Your task to perform on an android device: check google app version Image 0: 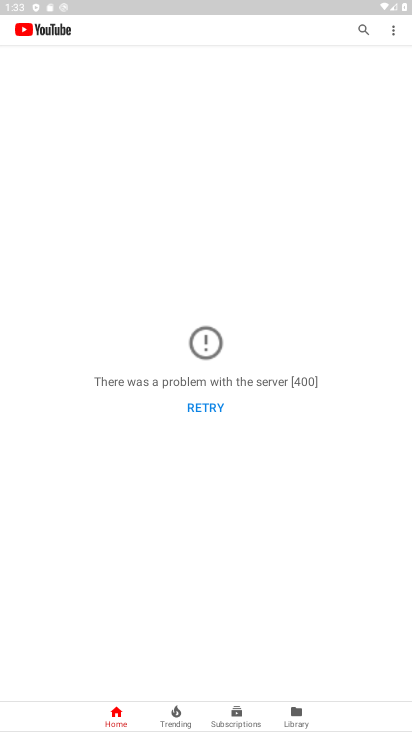
Step 0: press home button
Your task to perform on an android device: check google app version Image 1: 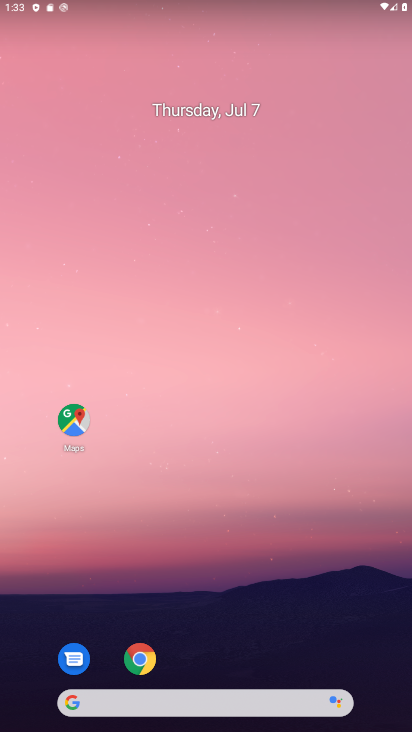
Step 1: drag from (214, 643) to (268, 63)
Your task to perform on an android device: check google app version Image 2: 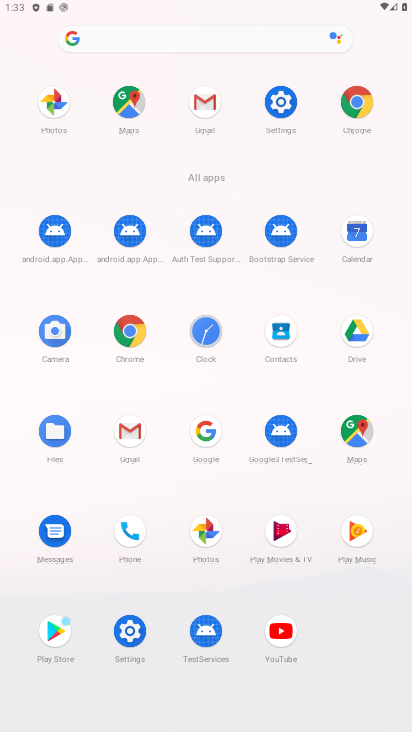
Step 2: click (200, 437)
Your task to perform on an android device: check google app version Image 3: 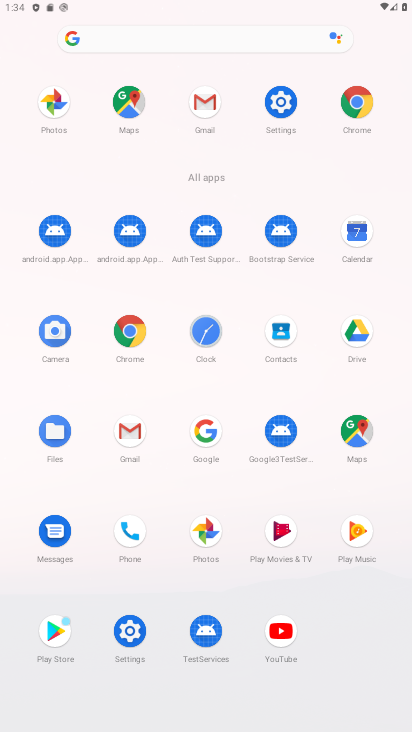
Step 3: click (203, 425)
Your task to perform on an android device: check google app version Image 4: 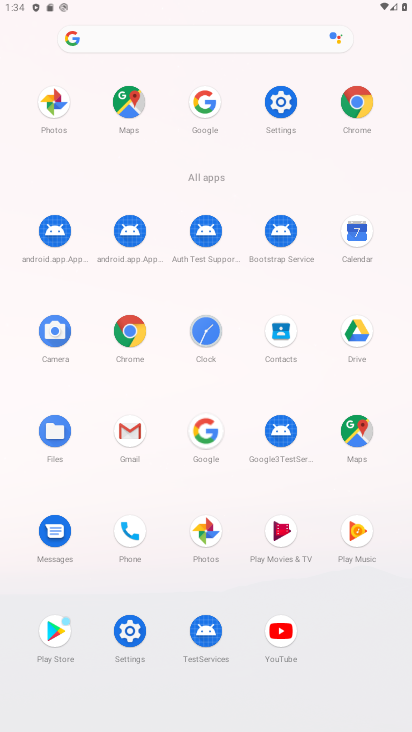
Step 4: click (205, 433)
Your task to perform on an android device: check google app version Image 5: 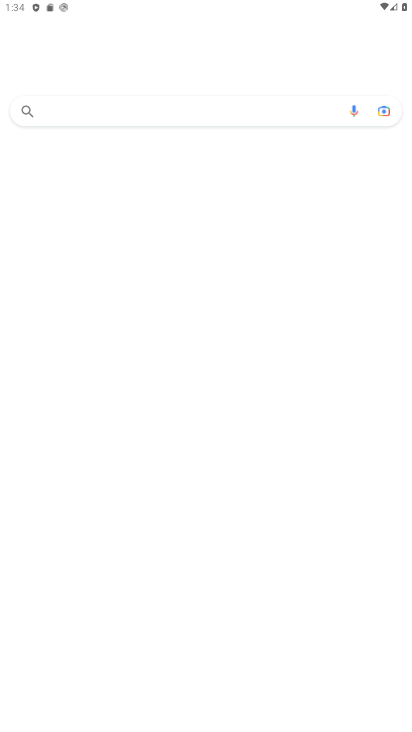
Step 5: click (207, 433)
Your task to perform on an android device: check google app version Image 6: 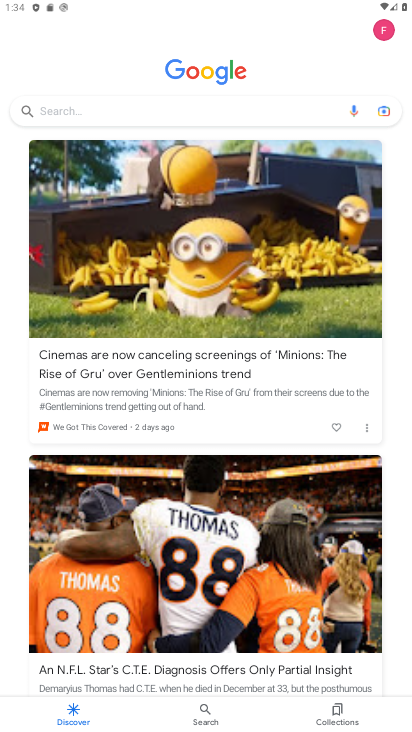
Step 6: click (393, 25)
Your task to perform on an android device: check google app version Image 7: 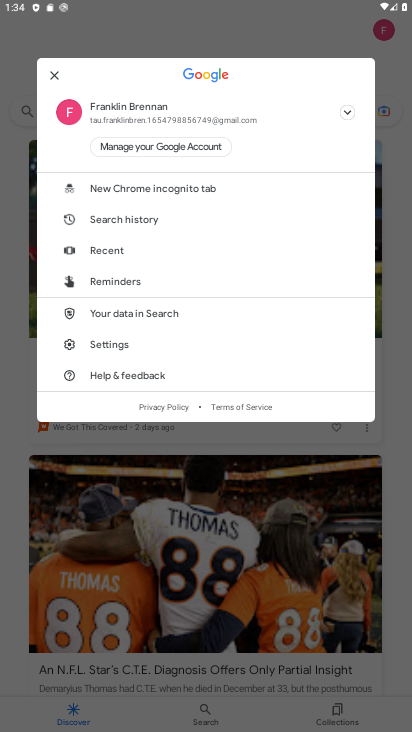
Step 7: click (99, 342)
Your task to perform on an android device: check google app version Image 8: 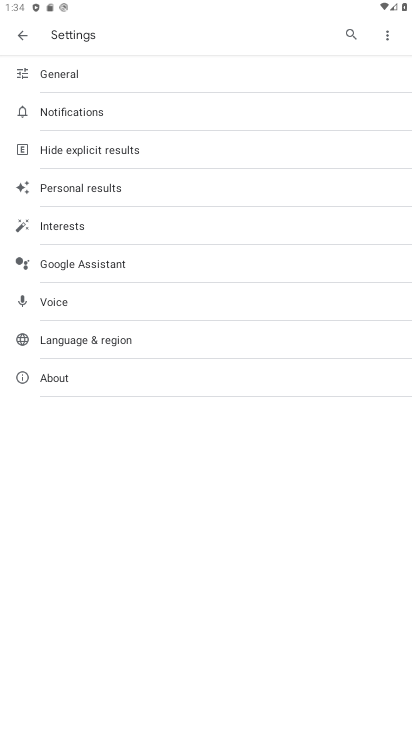
Step 8: click (67, 368)
Your task to perform on an android device: check google app version Image 9: 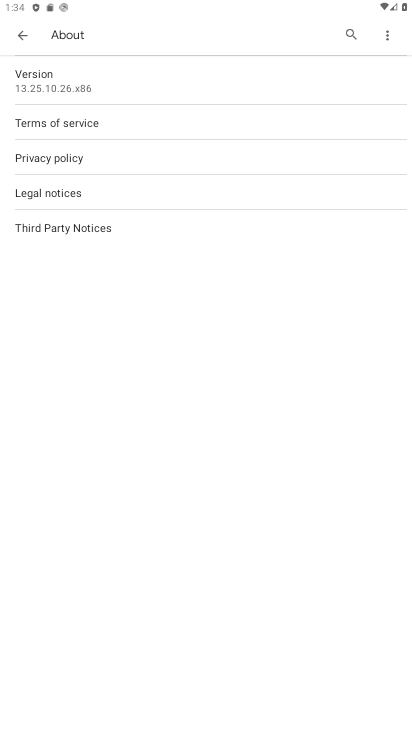
Step 9: click (69, 78)
Your task to perform on an android device: check google app version Image 10: 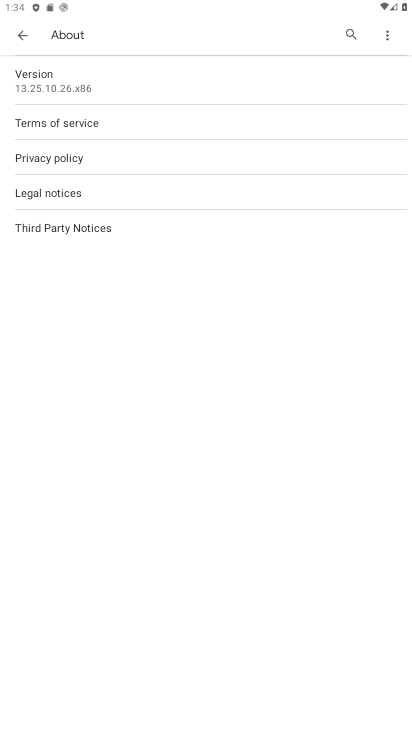
Step 10: task complete